Your task to perform on an android device: turn notification dots on Image 0: 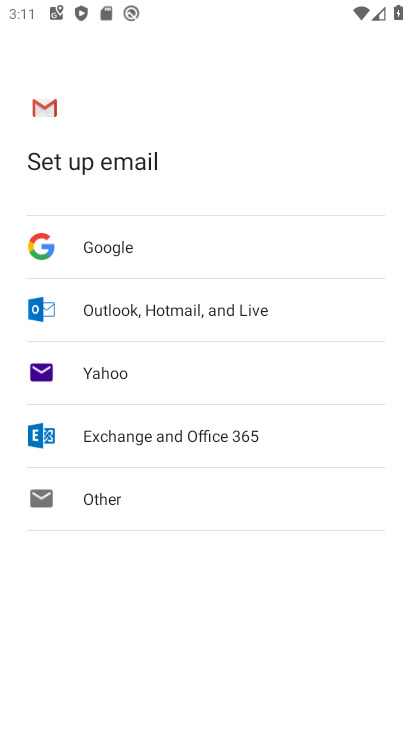
Step 0: press home button
Your task to perform on an android device: turn notification dots on Image 1: 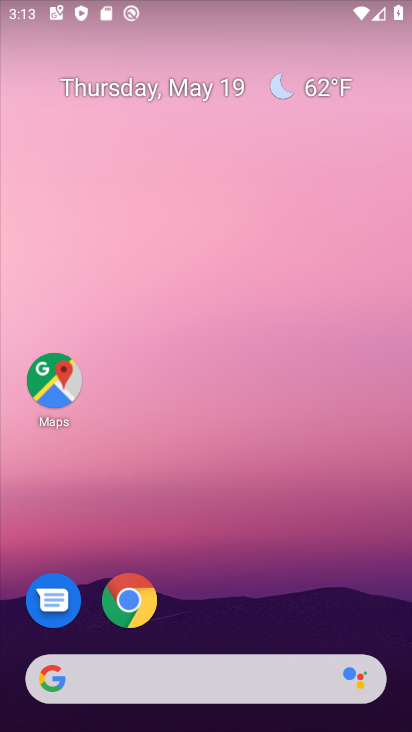
Step 1: drag from (67, 500) to (248, 162)
Your task to perform on an android device: turn notification dots on Image 2: 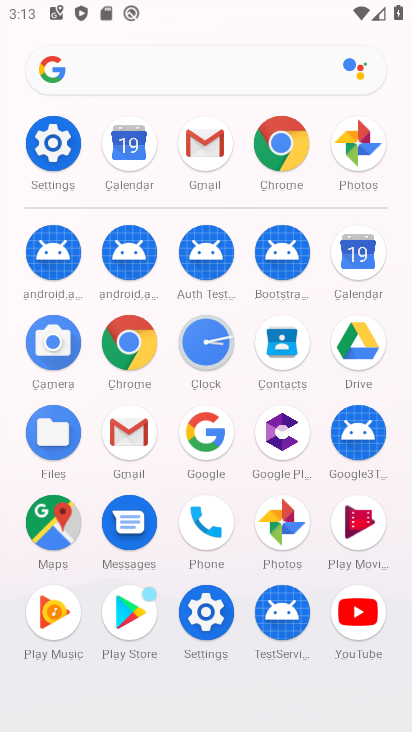
Step 2: click (55, 145)
Your task to perform on an android device: turn notification dots on Image 3: 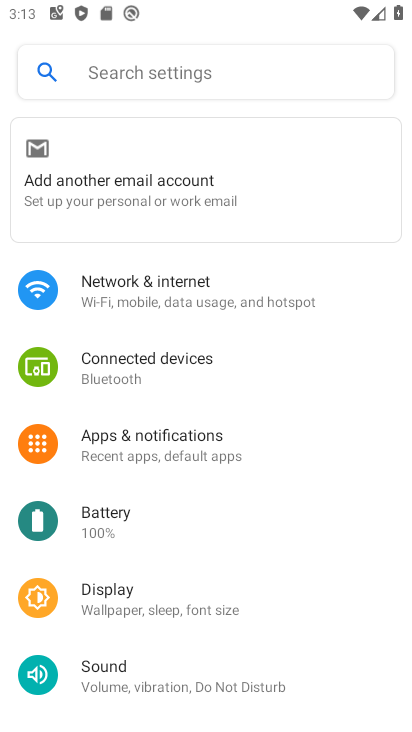
Step 3: click (247, 455)
Your task to perform on an android device: turn notification dots on Image 4: 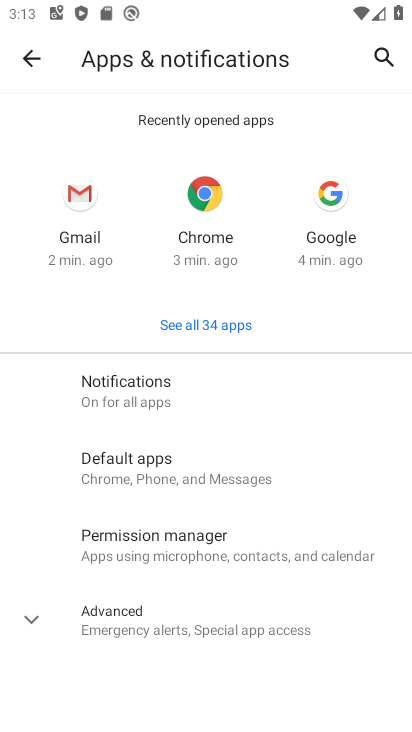
Step 4: click (270, 406)
Your task to perform on an android device: turn notification dots on Image 5: 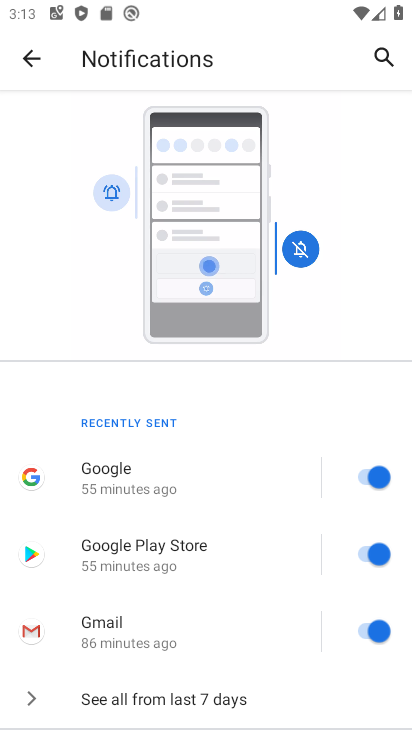
Step 5: drag from (134, 404) to (273, 198)
Your task to perform on an android device: turn notification dots on Image 6: 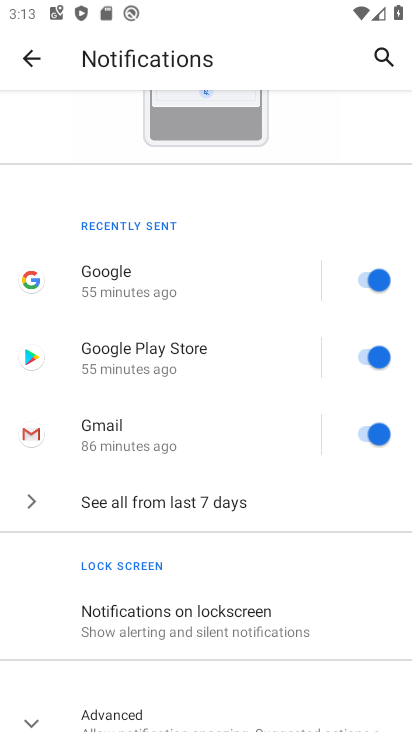
Step 6: drag from (51, 625) to (367, 229)
Your task to perform on an android device: turn notification dots on Image 7: 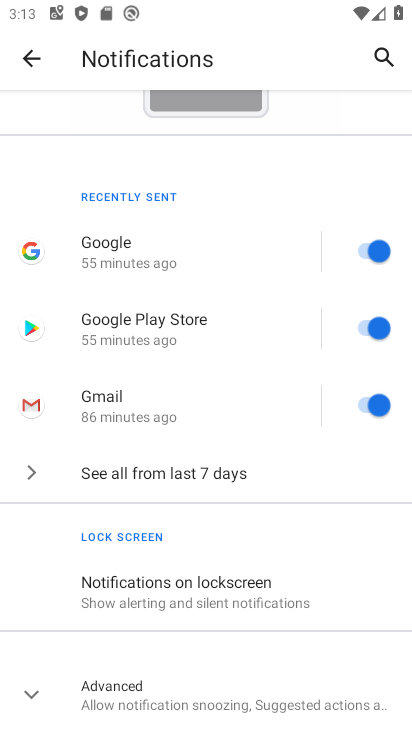
Step 7: click (181, 679)
Your task to perform on an android device: turn notification dots on Image 8: 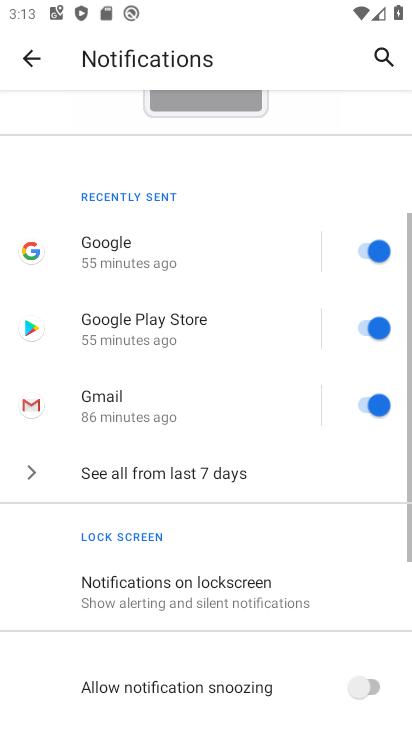
Step 8: task complete